Your task to perform on an android device: turn off improve location accuracy Image 0: 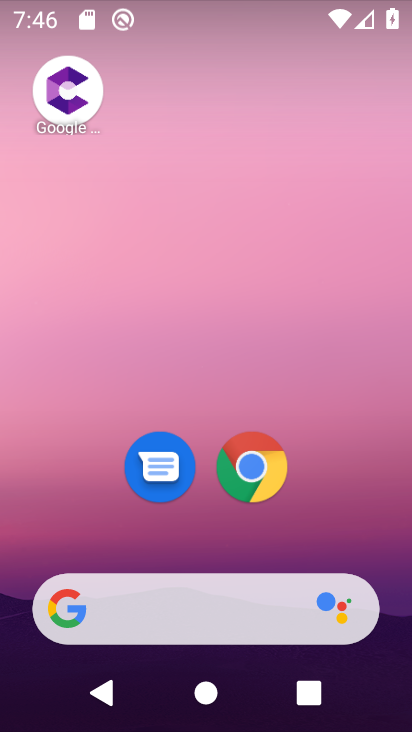
Step 0: drag from (212, 534) to (235, 86)
Your task to perform on an android device: turn off improve location accuracy Image 1: 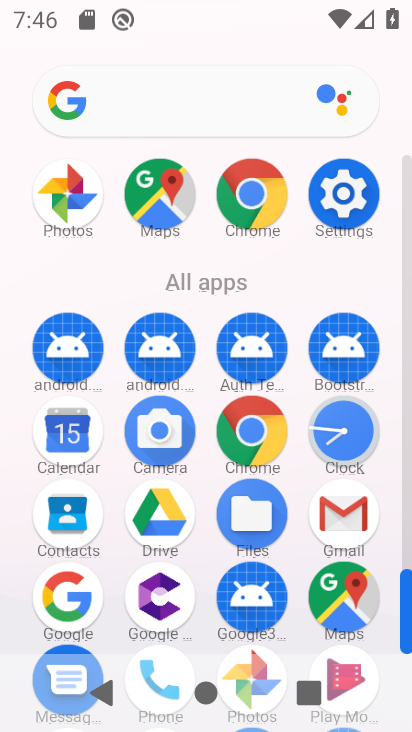
Step 1: click (327, 209)
Your task to perform on an android device: turn off improve location accuracy Image 2: 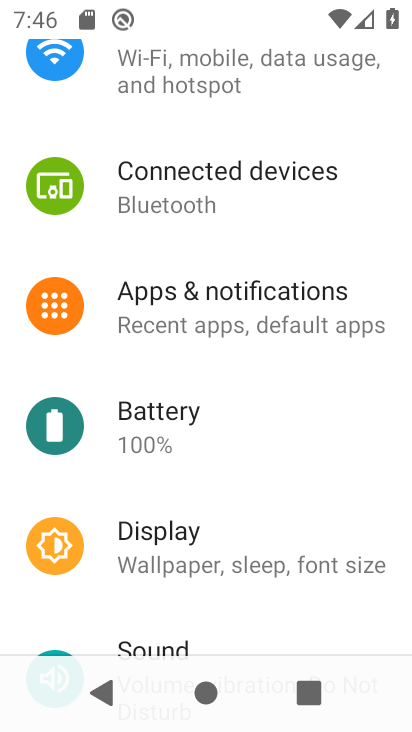
Step 2: drag from (215, 584) to (223, 248)
Your task to perform on an android device: turn off improve location accuracy Image 3: 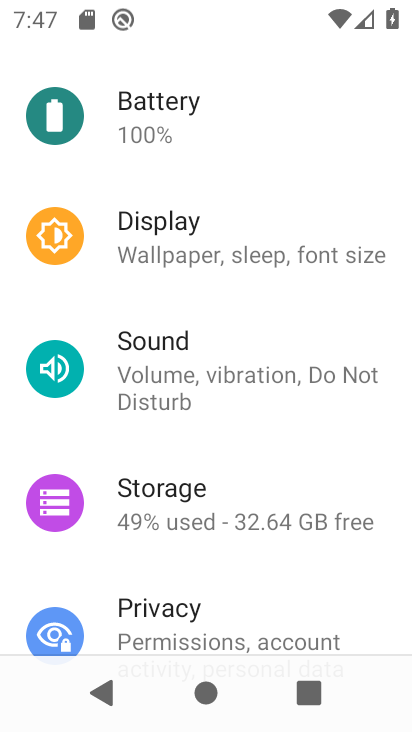
Step 3: drag from (170, 537) to (188, 356)
Your task to perform on an android device: turn off improve location accuracy Image 4: 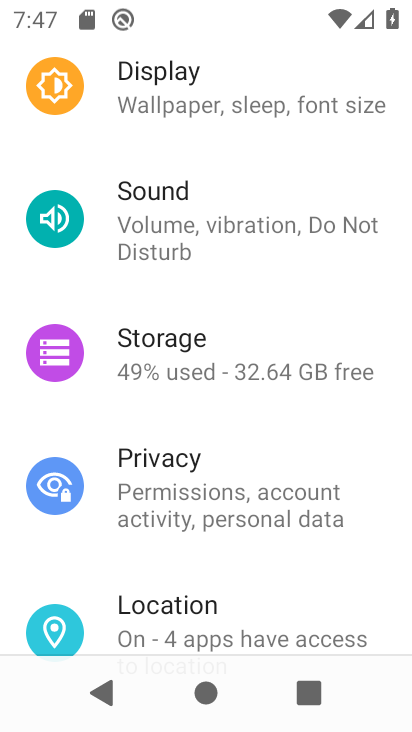
Step 4: click (166, 626)
Your task to perform on an android device: turn off improve location accuracy Image 5: 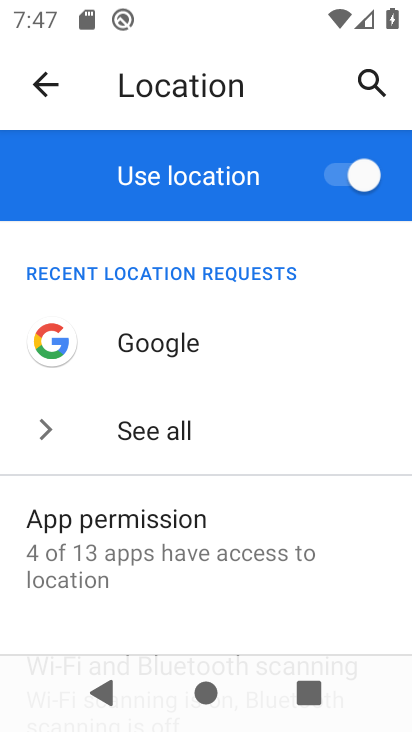
Step 5: drag from (146, 603) to (176, 98)
Your task to perform on an android device: turn off improve location accuracy Image 6: 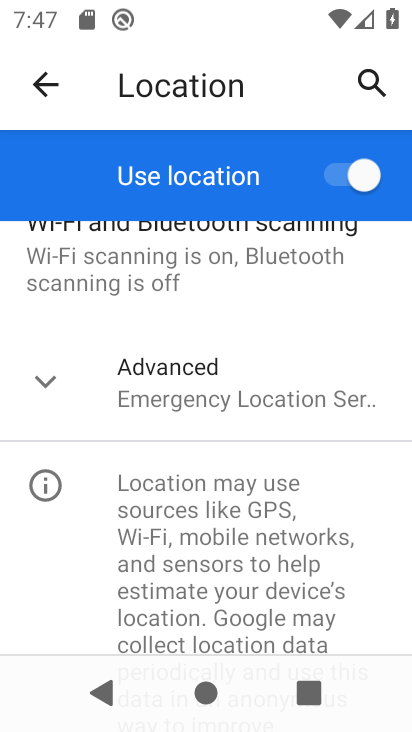
Step 6: click (178, 380)
Your task to perform on an android device: turn off improve location accuracy Image 7: 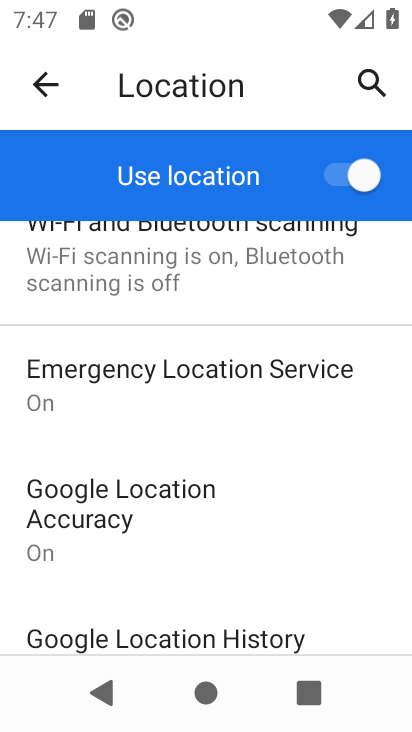
Step 7: drag from (189, 558) to (188, 339)
Your task to perform on an android device: turn off improve location accuracy Image 8: 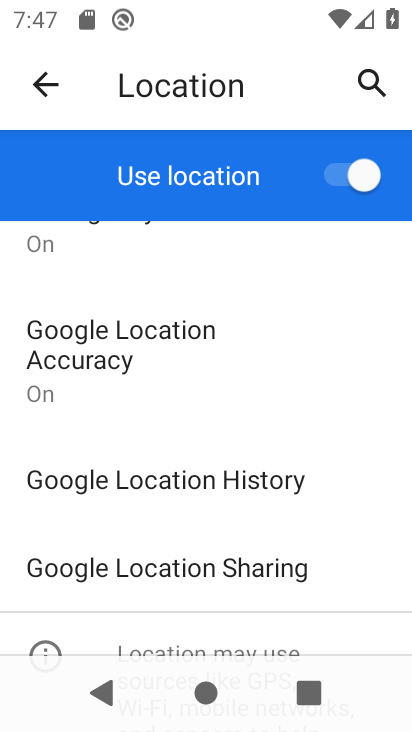
Step 8: click (124, 346)
Your task to perform on an android device: turn off improve location accuracy Image 9: 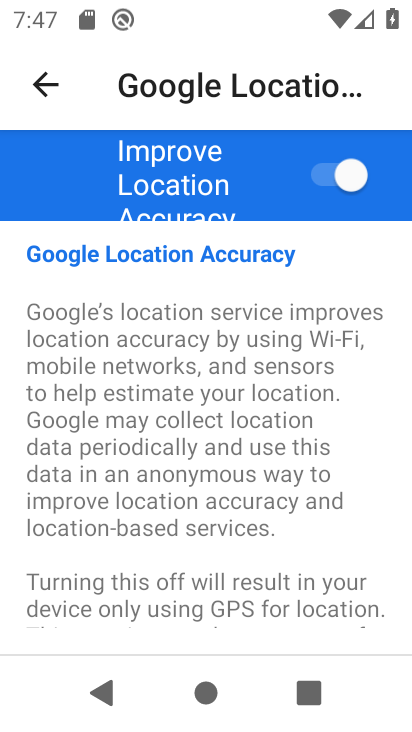
Step 9: click (347, 179)
Your task to perform on an android device: turn off improve location accuracy Image 10: 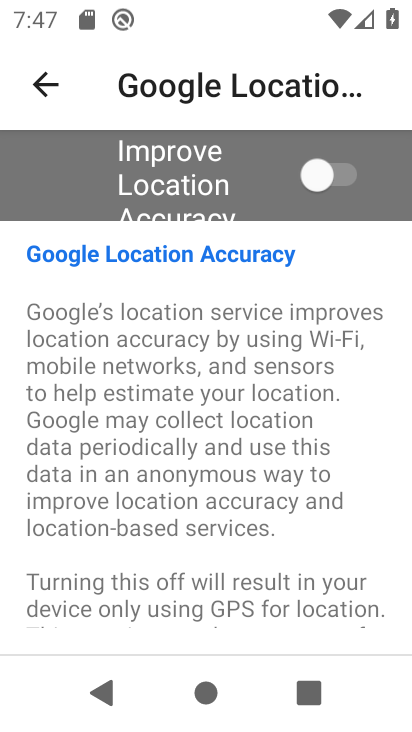
Step 10: task complete